Your task to perform on an android device: turn off translation in the chrome app Image 0: 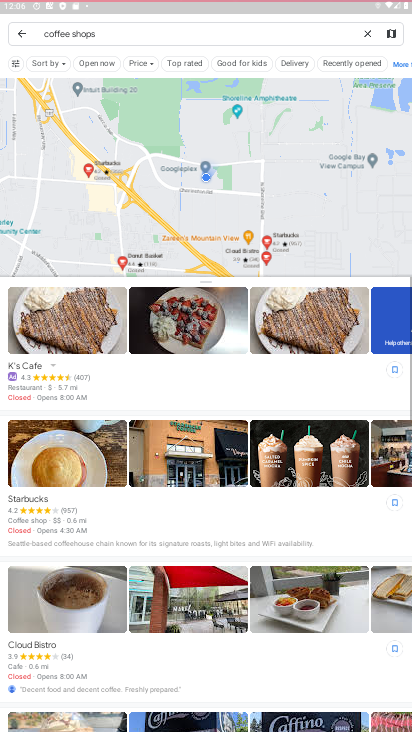
Step 0: drag from (296, 10) to (242, 12)
Your task to perform on an android device: turn off translation in the chrome app Image 1: 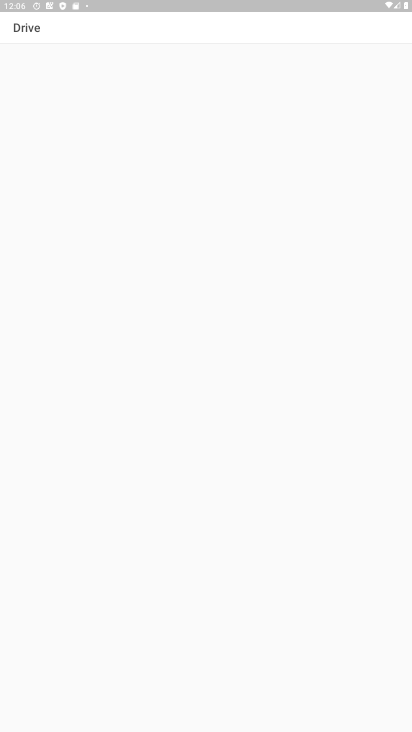
Step 1: press home button
Your task to perform on an android device: turn off translation in the chrome app Image 2: 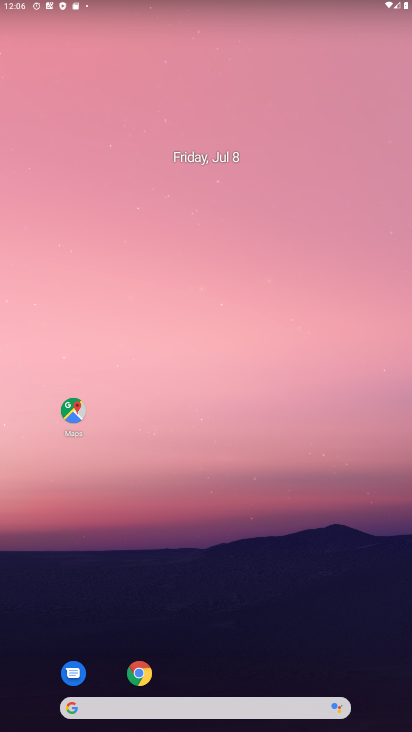
Step 2: click (142, 673)
Your task to perform on an android device: turn off translation in the chrome app Image 3: 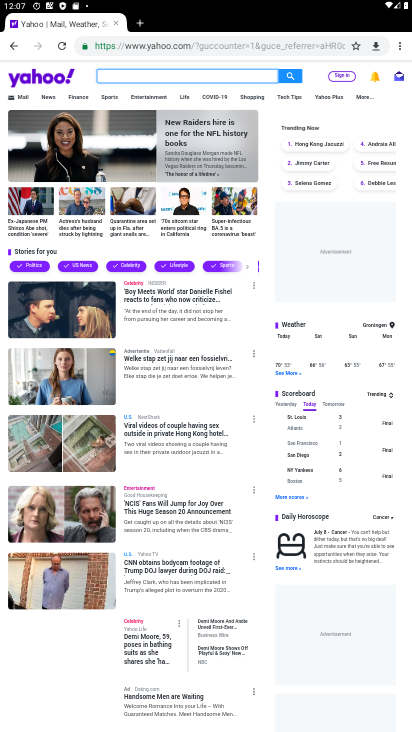
Step 3: click (401, 47)
Your task to perform on an android device: turn off translation in the chrome app Image 4: 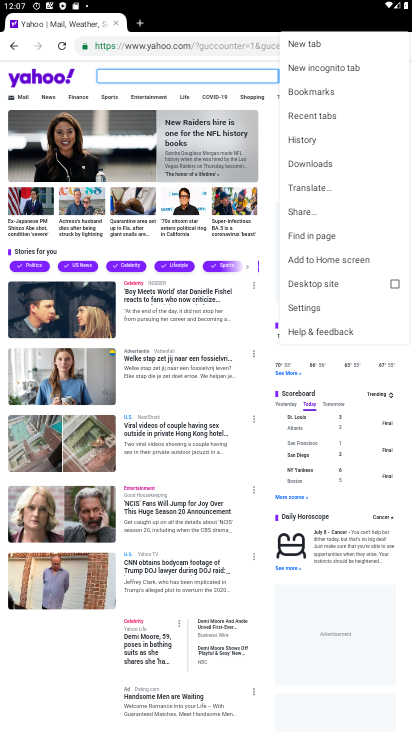
Step 4: click (308, 306)
Your task to perform on an android device: turn off translation in the chrome app Image 5: 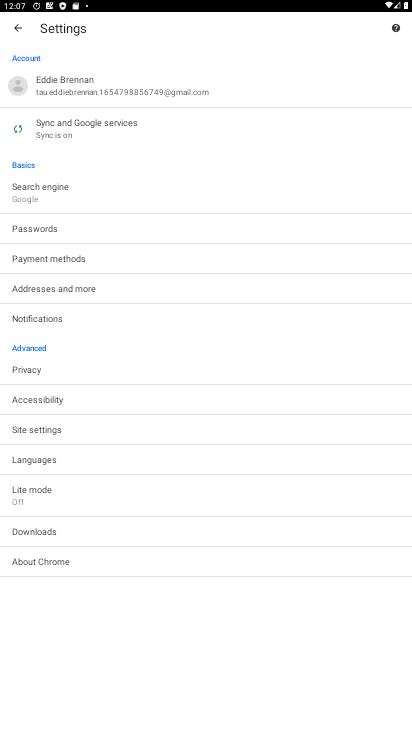
Step 5: click (48, 461)
Your task to perform on an android device: turn off translation in the chrome app Image 6: 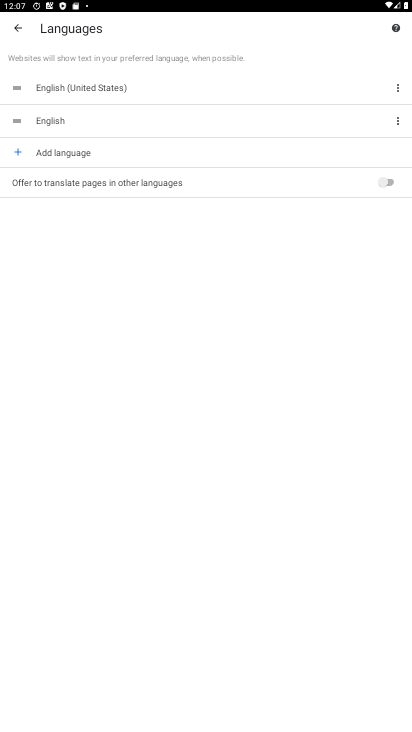
Step 6: task complete